Your task to perform on an android device: change alarm snooze length Image 0: 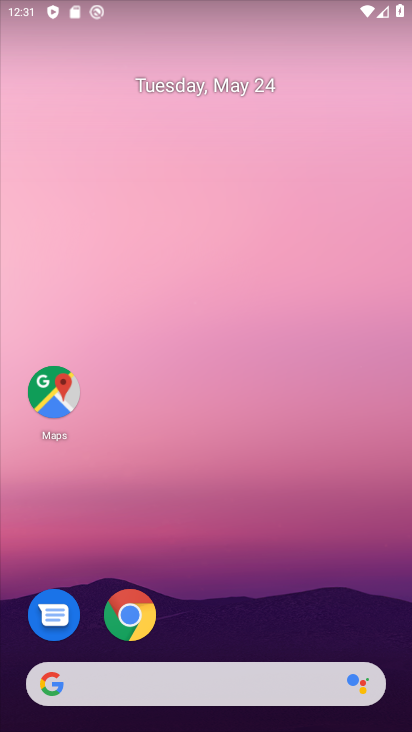
Step 0: drag from (227, 638) to (257, 35)
Your task to perform on an android device: change alarm snooze length Image 1: 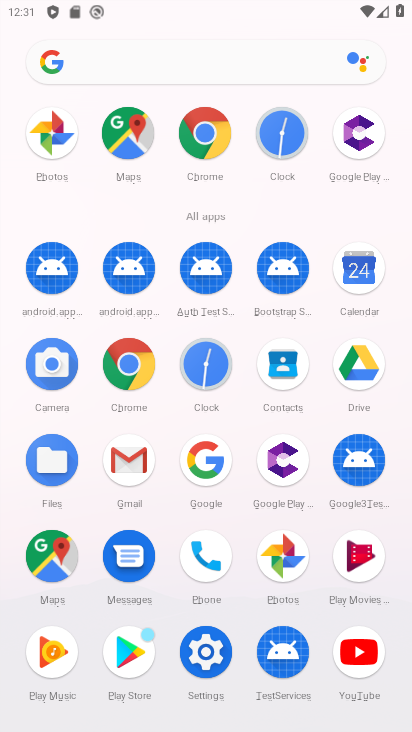
Step 1: click (279, 129)
Your task to perform on an android device: change alarm snooze length Image 2: 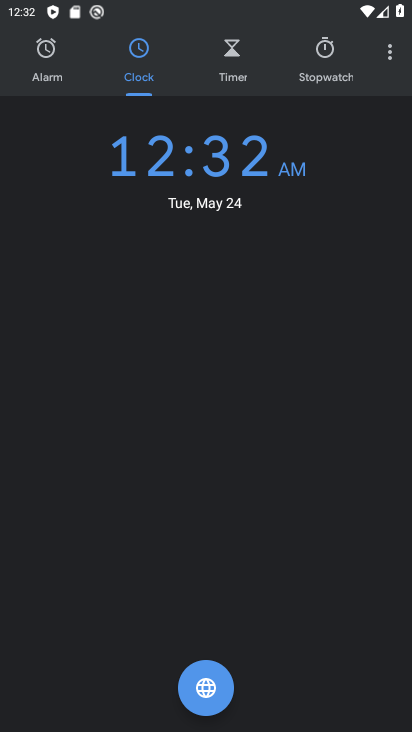
Step 2: press home button
Your task to perform on an android device: change alarm snooze length Image 3: 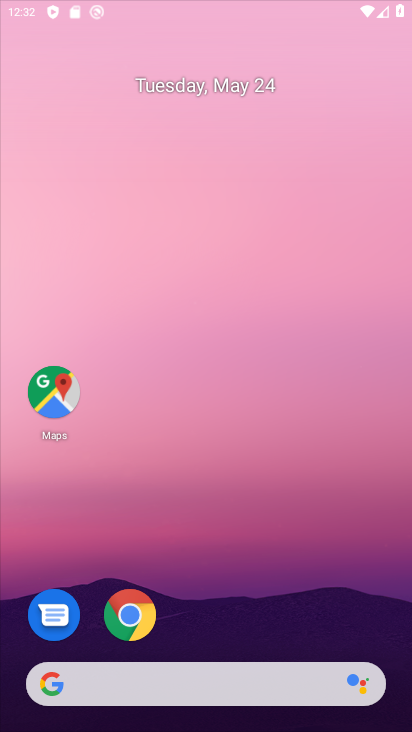
Step 3: click (386, 48)
Your task to perform on an android device: change alarm snooze length Image 4: 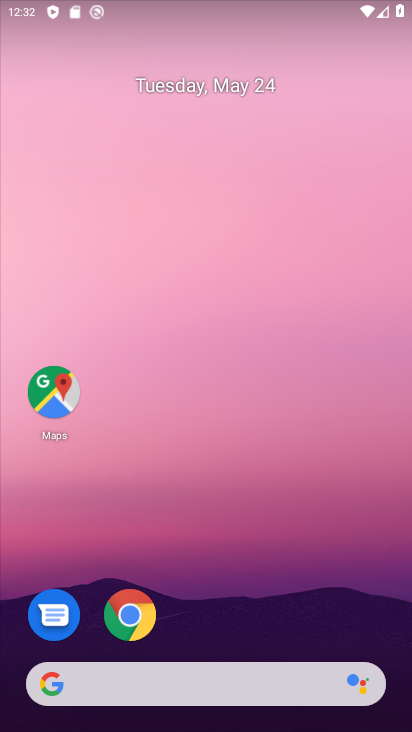
Step 4: drag from (224, 641) to (250, 22)
Your task to perform on an android device: change alarm snooze length Image 5: 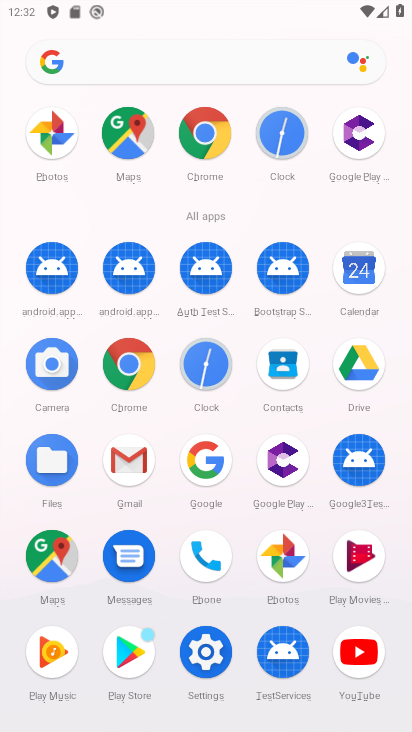
Step 5: click (281, 129)
Your task to perform on an android device: change alarm snooze length Image 6: 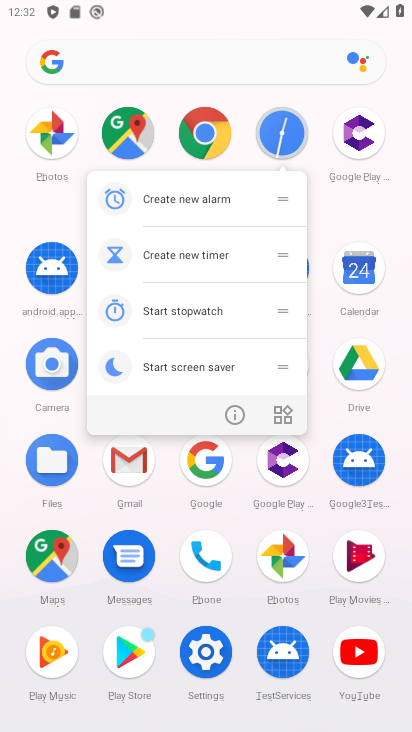
Step 6: click (279, 127)
Your task to perform on an android device: change alarm snooze length Image 7: 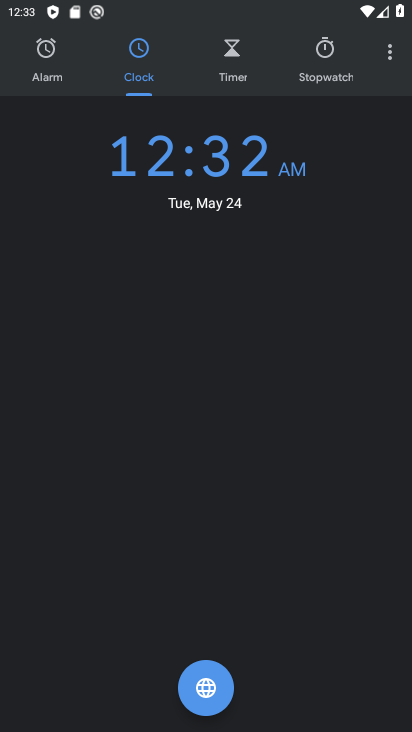
Step 7: click (384, 53)
Your task to perform on an android device: change alarm snooze length Image 8: 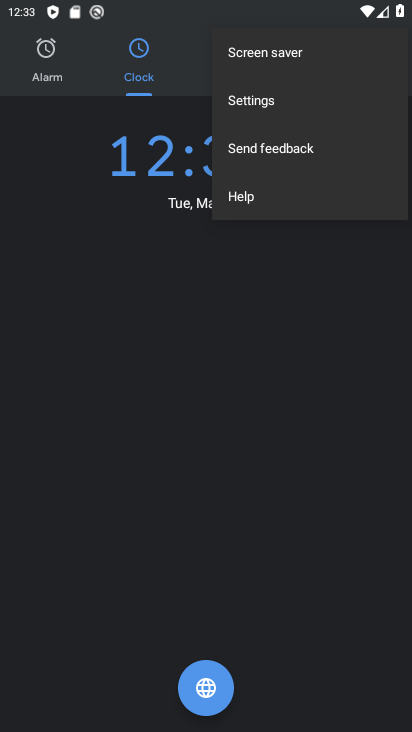
Step 8: click (287, 96)
Your task to perform on an android device: change alarm snooze length Image 9: 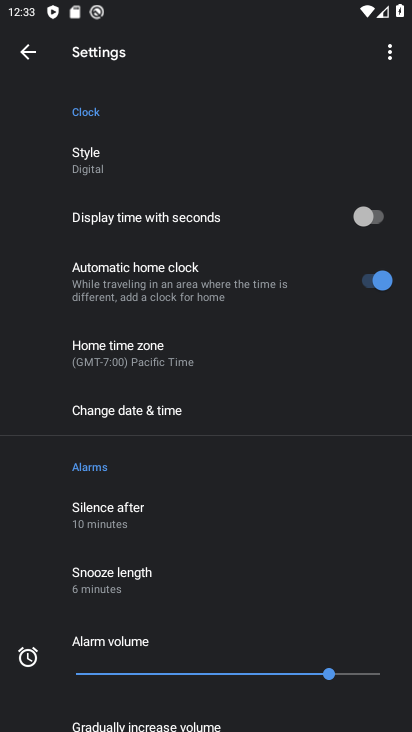
Step 9: click (159, 582)
Your task to perform on an android device: change alarm snooze length Image 10: 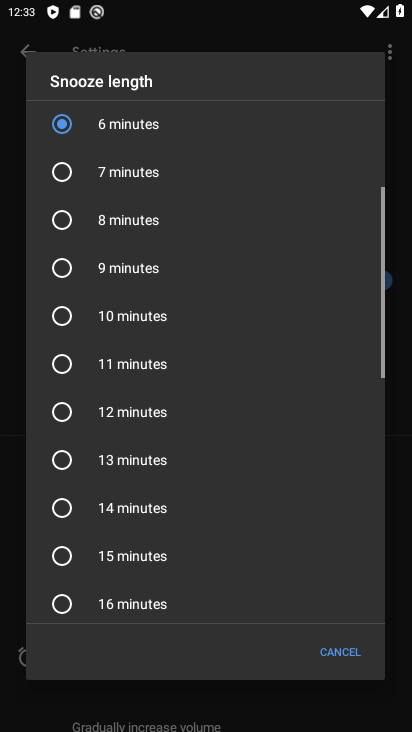
Step 10: drag from (123, 166) to (111, 516)
Your task to perform on an android device: change alarm snooze length Image 11: 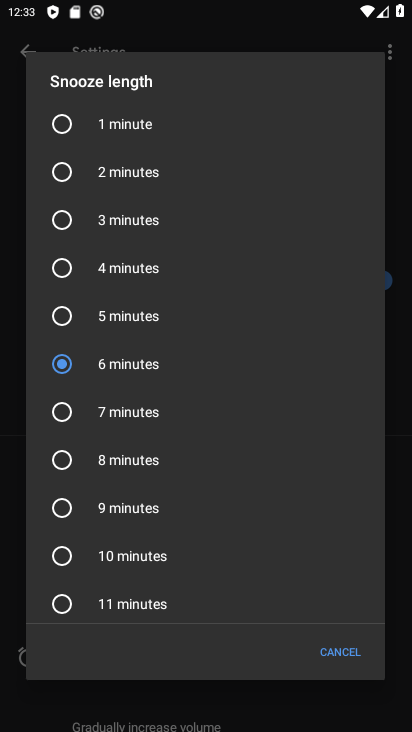
Step 11: click (61, 171)
Your task to perform on an android device: change alarm snooze length Image 12: 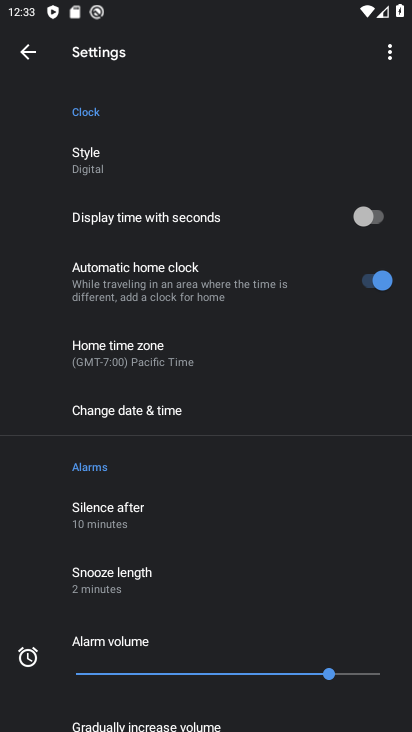
Step 12: task complete